Your task to perform on an android device: turn on wifi Image 0: 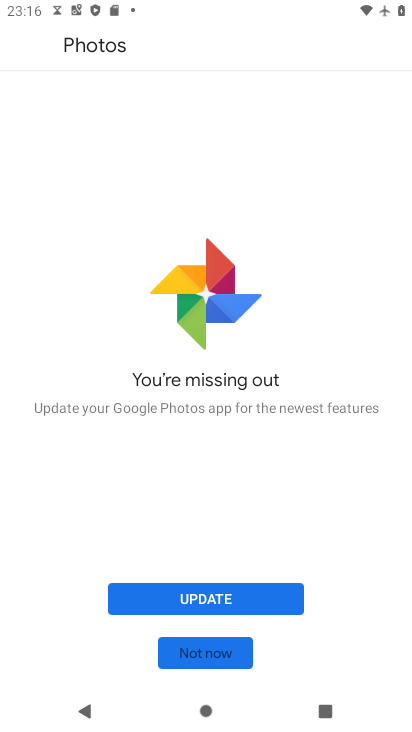
Step 0: press back button
Your task to perform on an android device: turn on wifi Image 1: 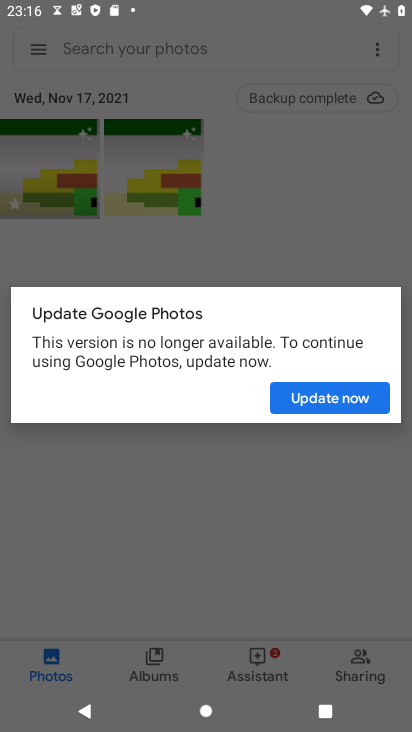
Step 1: press back button
Your task to perform on an android device: turn on wifi Image 2: 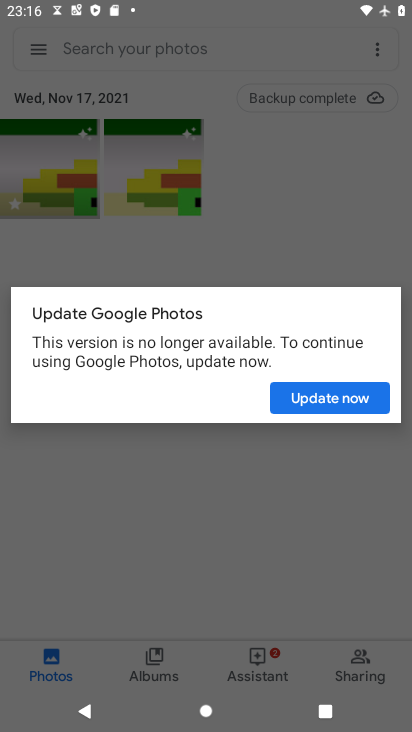
Step 2: press home button
Your task to perform on an android device: turn on wifi Image 3: 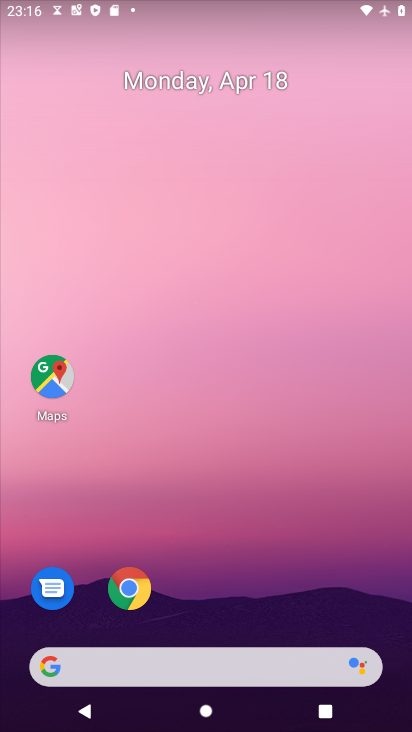
Step 3: drag from (341, 472) to (291, 101)
Your task to perform on an android device: turn on wifi Image 4: 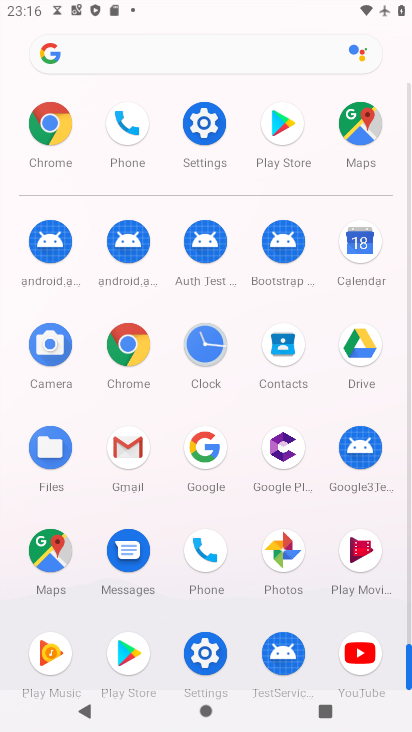
Step 4: click (205, 118)
Your task to perform on an android device: turn on wifi Image 5: 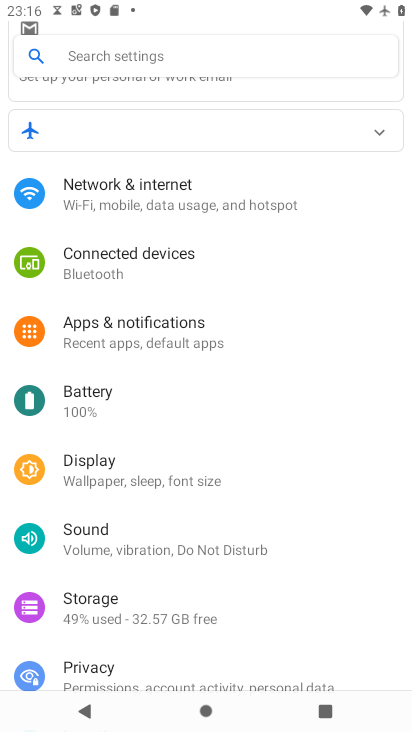
Step 5: click (193, 187)
Your task to perform on an android device: turn on wifi Image 6: 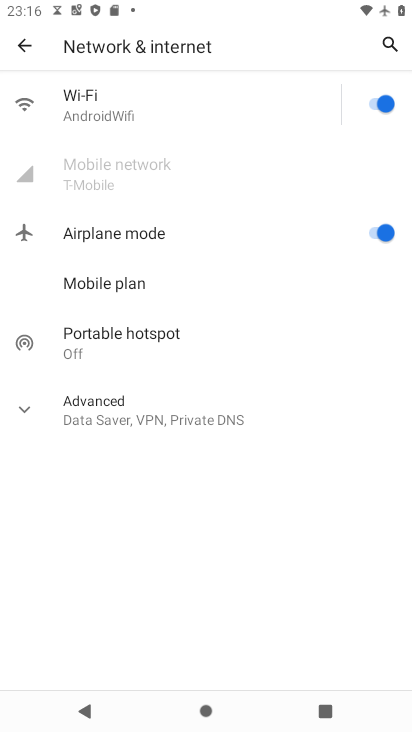
Step 6: task complete